Your task to perform on an android device: Open Yahoo.com Image 0: 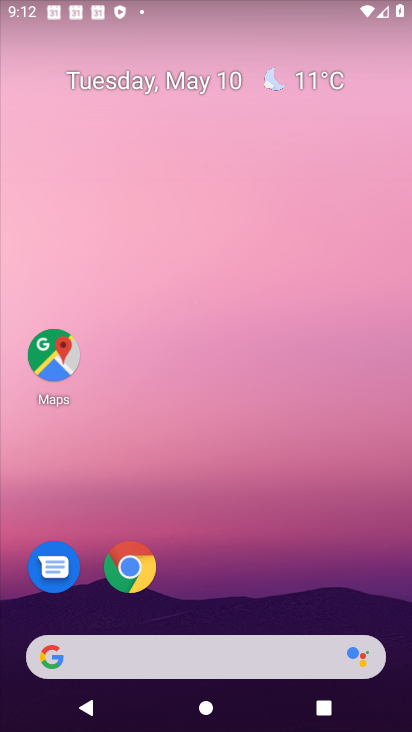
Step 0: click (134, 568)
Your task to perform on an android device: Open Yahoo.com Image 1: 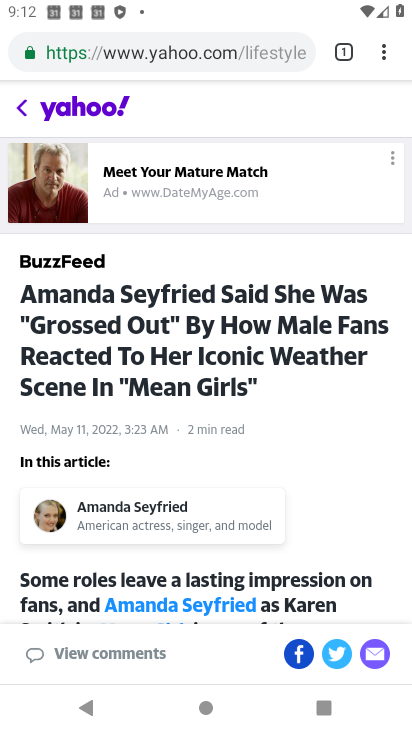
Step 1: task complete